Your task to perform on an android device: What is the recent news? Image 0: 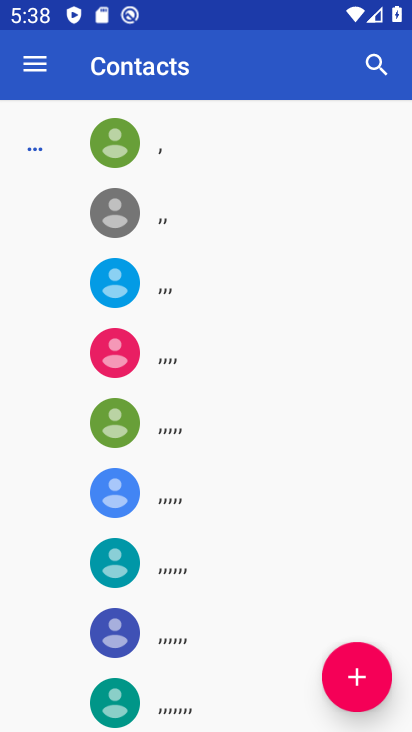
Step 0: press home button
Your task to perform on an android device: What is the recent news? Image 1: 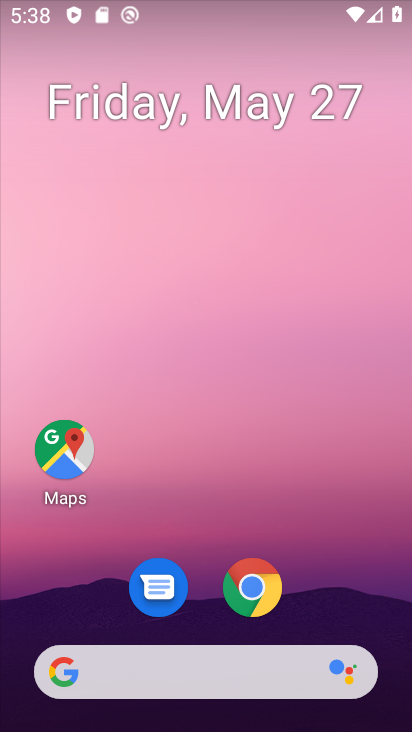
Step 1: click (255, 593)
Your task to perform on an android device: What is the recent news? Image 2: 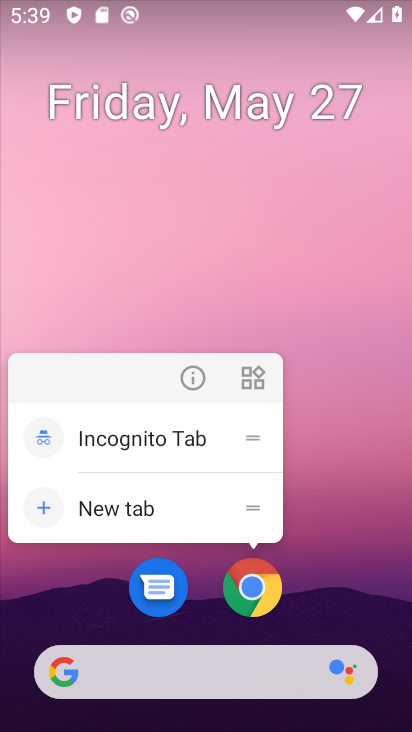
Step 2: drag from (308, 500) to (282, 127)
Your task to perform on an android device: What is the recent news? Image 3: 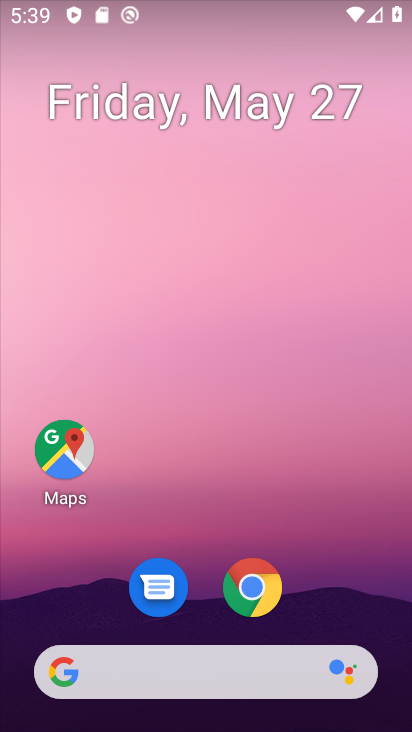
Step 3: drag from (341, 530) to (335, 7)
Your task to perform on an android device: What is the recent news? Image 4: 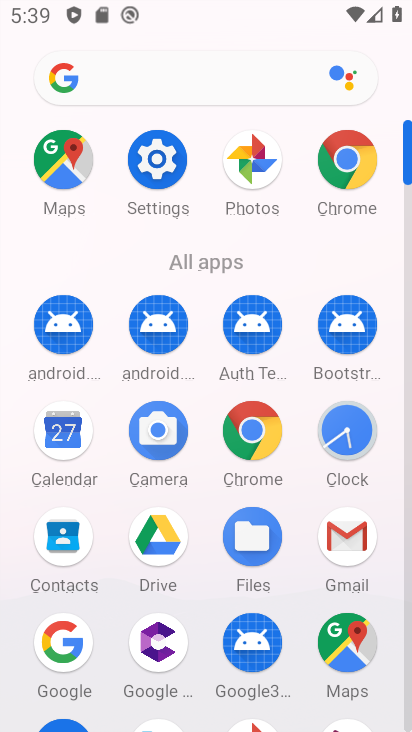
Step 4: click (350, 162)
Your task to perform on an android device: What is the recent news? Image 5: 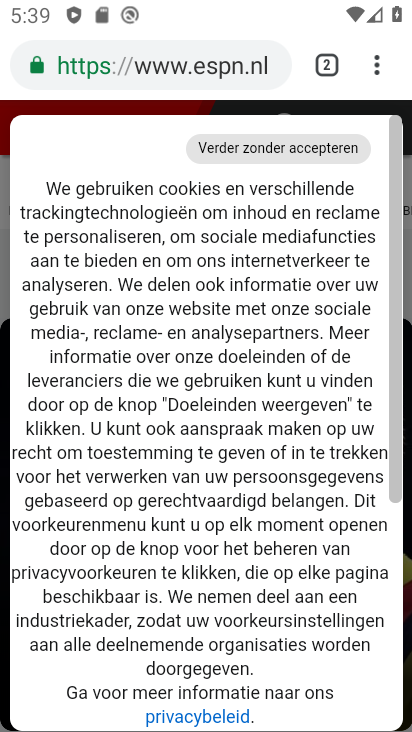
Step 5: click (194, 60)
Your task to perform on an android device: What is the recent news? Image 6: 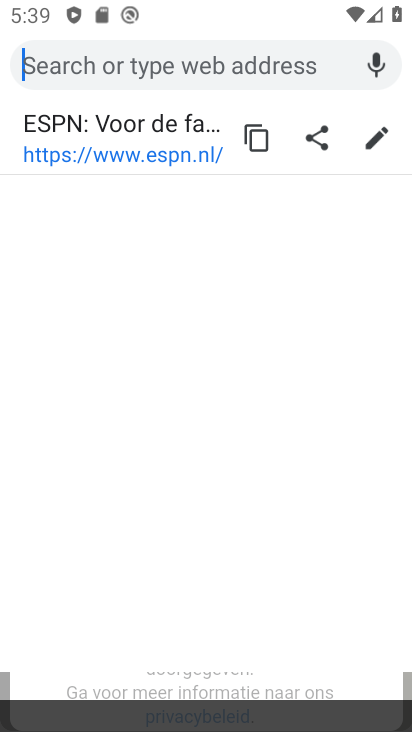
Step 6: click (194, 60)
Your task to perform on an android device: What is the recent news? Image 7: 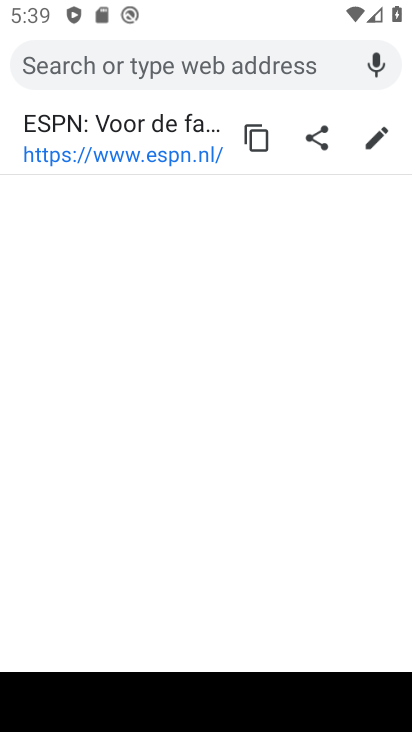
Step 7: type "What is the recent news?"
Your task to perform on an android device: What is the recent news? Image 8: 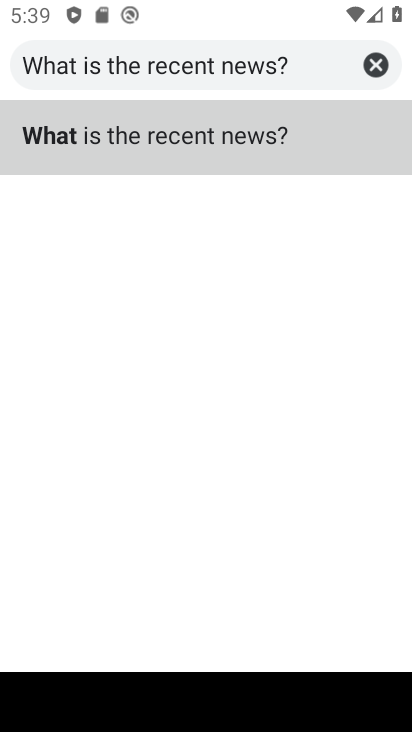
Step 8: click (92, 128)
Your task to perform on an android device: What is the recent news? Image 9: 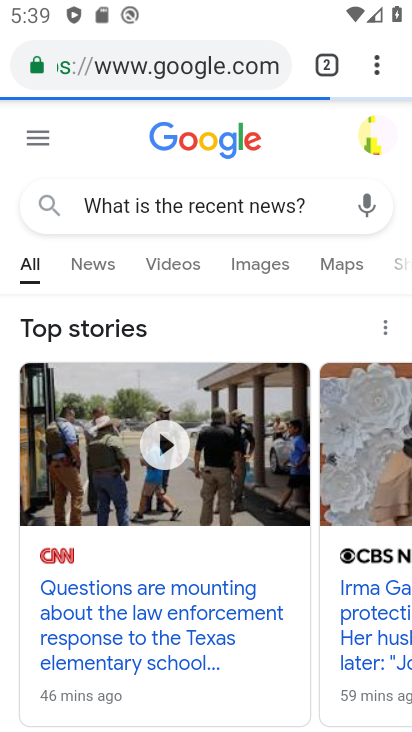
Step 9: click (94, 260)
Your task to perform on an android device: What is the recent news? Image 10: 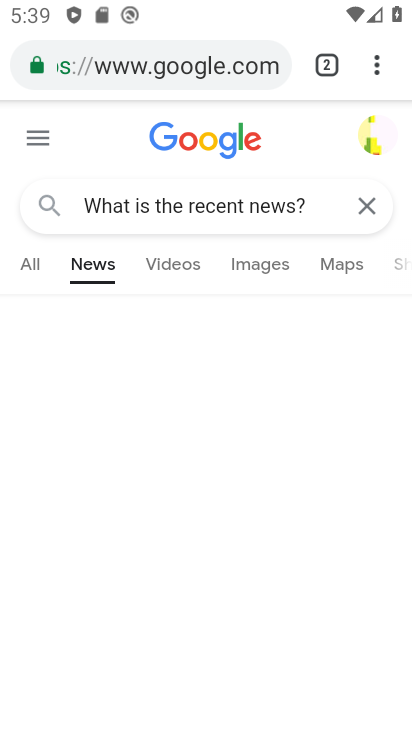
Step 10: task complete